Your task to perform on an android device: check storage Image 0: 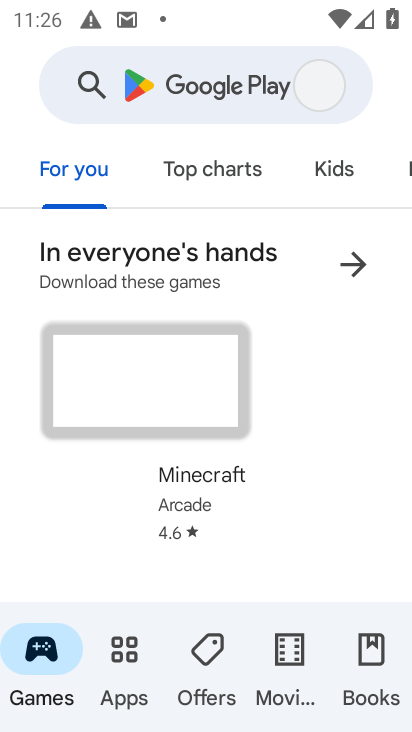
Step 0: press home button
Your task to perform on an android device: check storage Image 1: 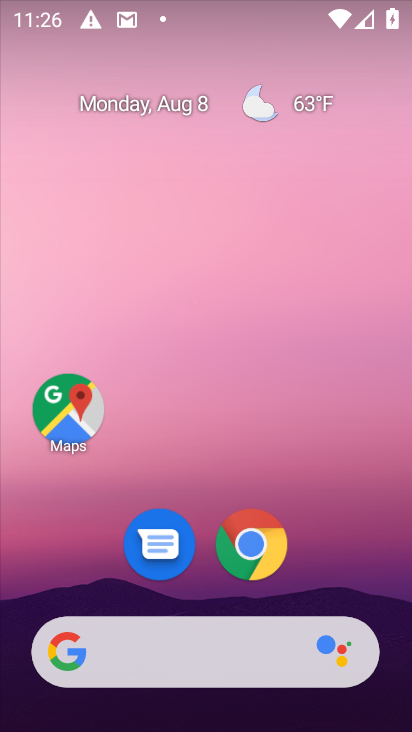
Step 1: drag from (248, 466) to (229, 187)
Your task to perform on an android device: check storage Image 2: 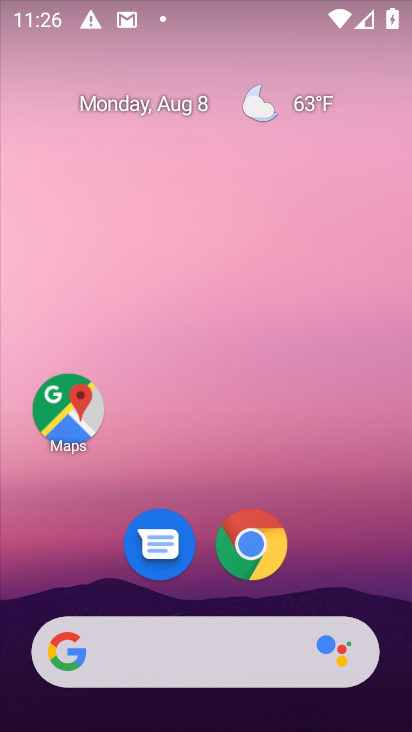
Step 2: drag from (190, 649) to (272, 23)
Your task to perform on an android device: check storage Image 3: 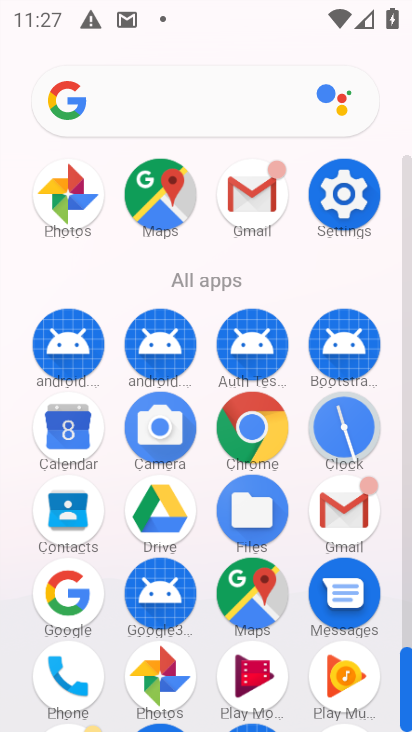
Step 3: click (347, 190)
Your task to perform on an android device: check storage Image 4: 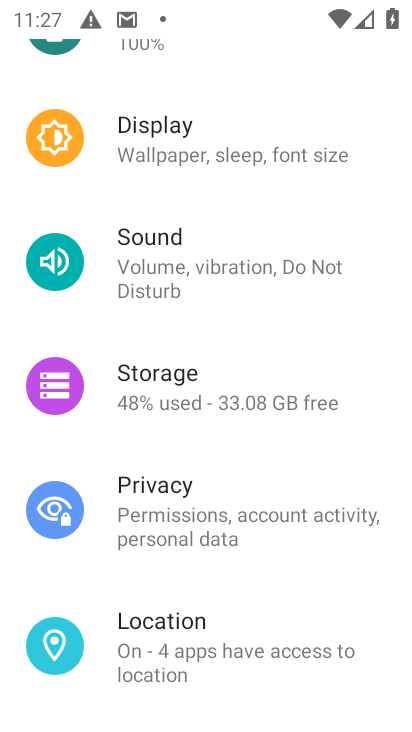
Step 4: click (211, 403)
Your task to perform on an android device: check storage Image 5: 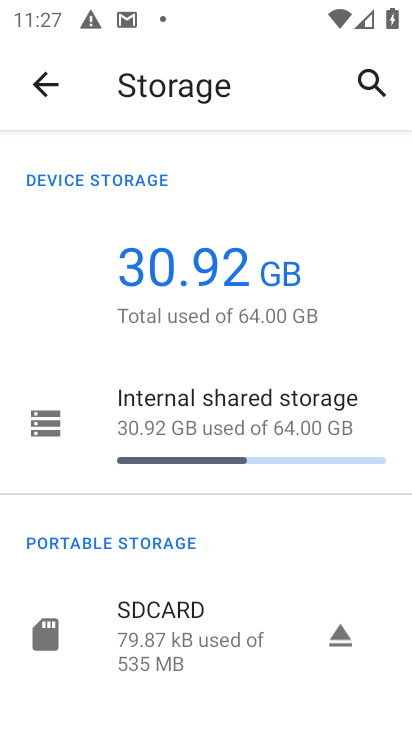
Step 5: task complete